Your task to perform on an android device: toggle javascript in the chrome app Image 0: 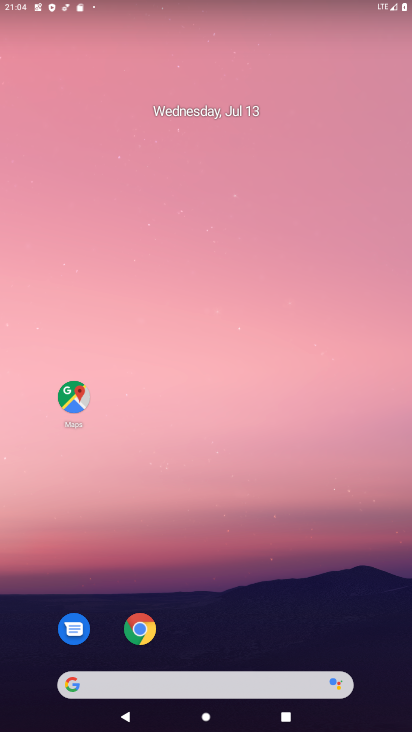
Step 0: drag from (192, 658) to (209, 139)
Your task to perform on an android device: toggle javascript in the chrome app Image 1: 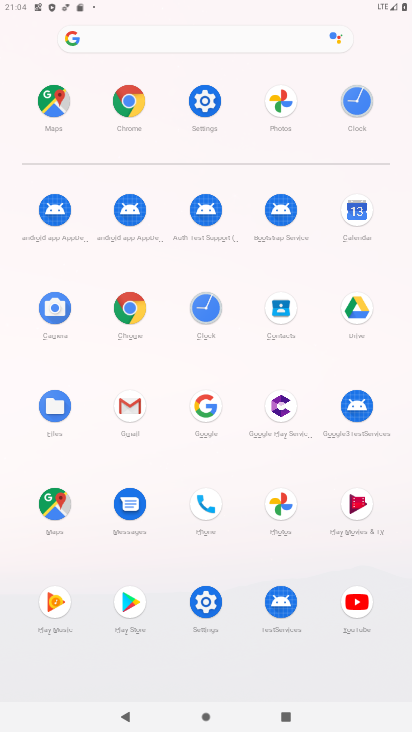
Step 1: click (130, 310)
Your task to perform on an android device: toggle javascript in the chrome app Image 2: 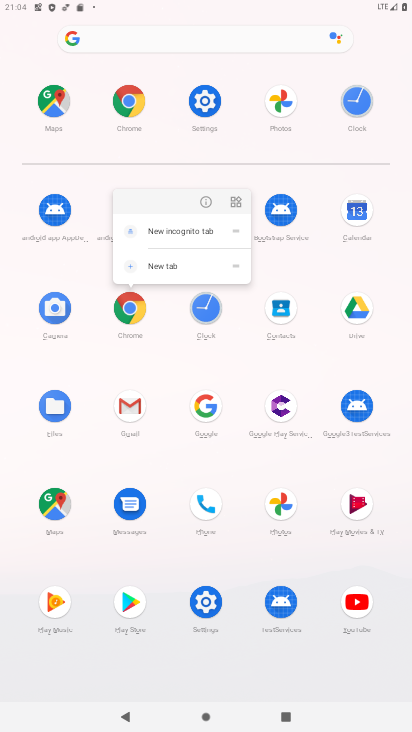
Step 2: click (130, 312)
Your task to perform on an android device: toggle javascript in the chrome app Image 3: 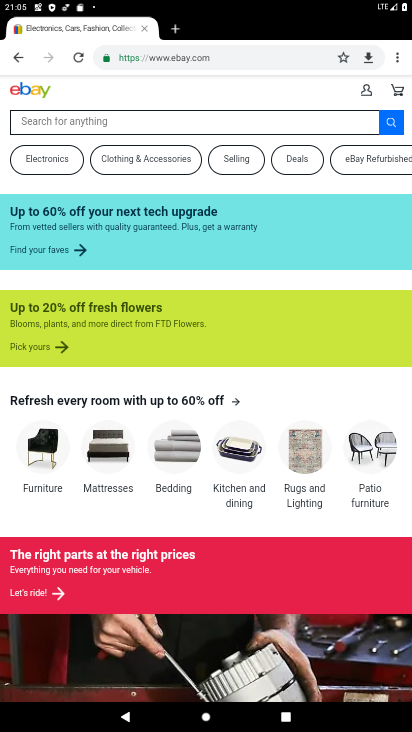
Step 3: click (400, 61)
Your task to perform on an android device: toggle javascript in the chrome app Image 4: 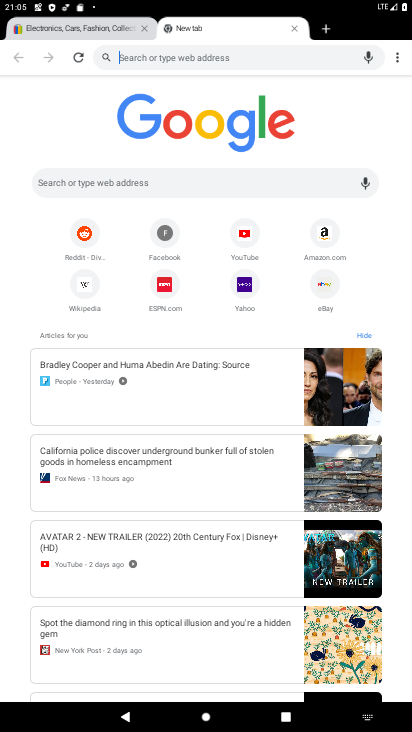
Step 4: drag from (402, 54) to (308, 253)
Your task to perform on an android device: toggle javascript in the chrome app Image 5: 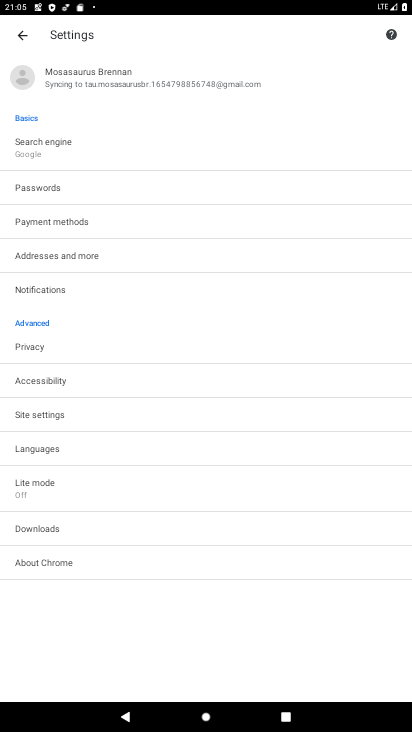
Step 5: click (99, 407)
Your task to perform on an android device: toggle javascript in the chrome app Image 6: 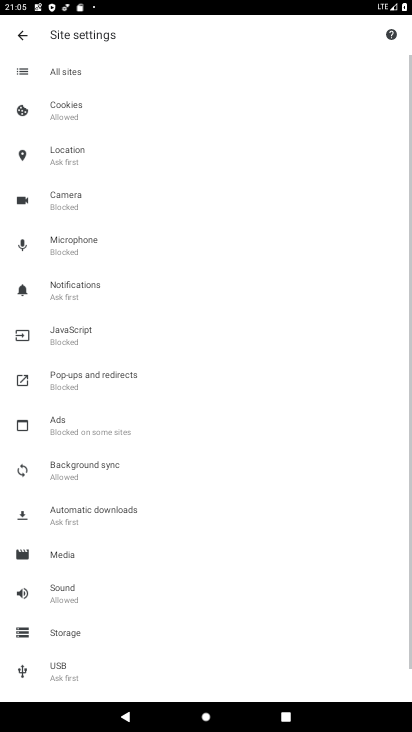
Step 6: click (80, 327)
Your task to perform on an android device: toggle javascript in the chrome app Image 7: 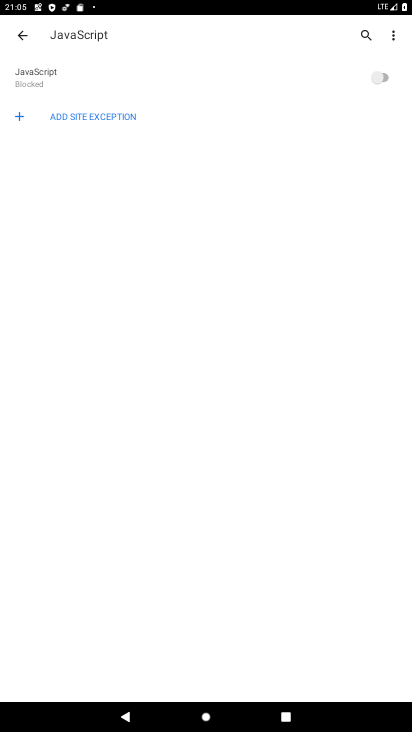
Step 7: click (335, 76)
Your task to perform on an android device: toggle javascript in the chrome app Image 8: 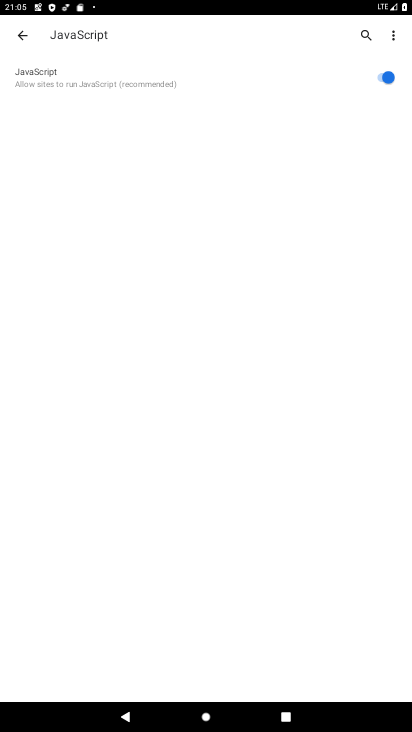
Step 8: task complete